Your task to perform on an android device: move a message to another label in the gmail app Image 0: 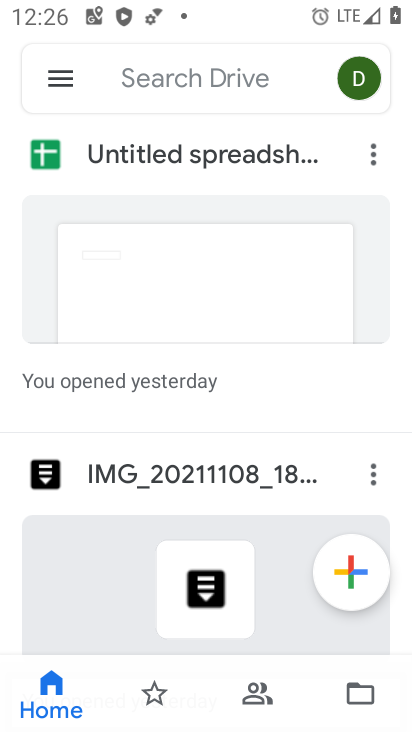
Step 0: press home button
Your task to perform on an android device: move a message to another label in the gmail app Image 1: 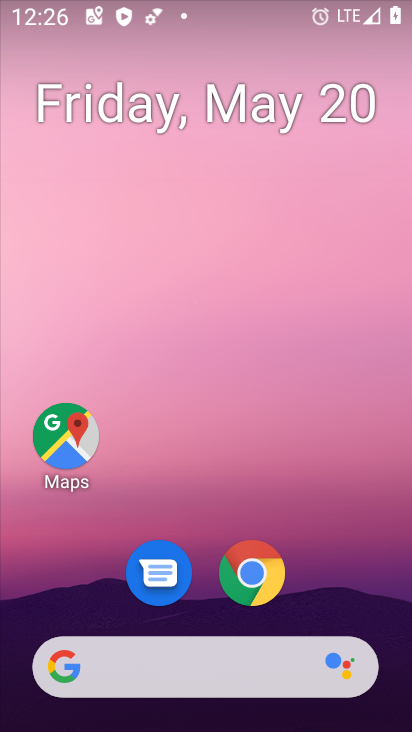
Step 1: drag from (341, 577) to (328, 5)
Your task to perform on an android device: move a message to another label in the gmail app Image 2: 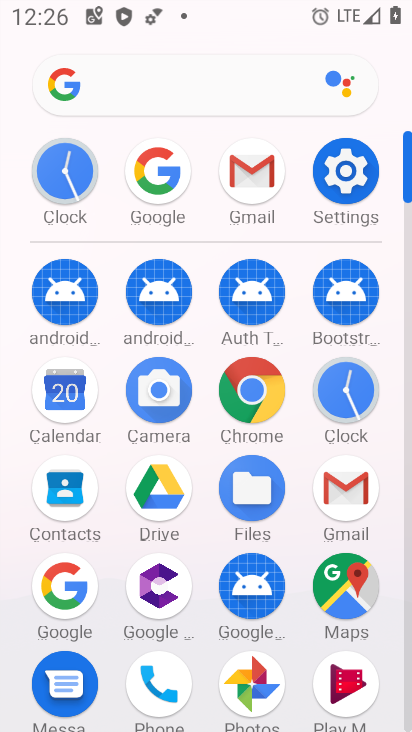
Step 2: click (350, 478)
Your task to perform on an android device: move a message to another label in the gmail app Image 3: 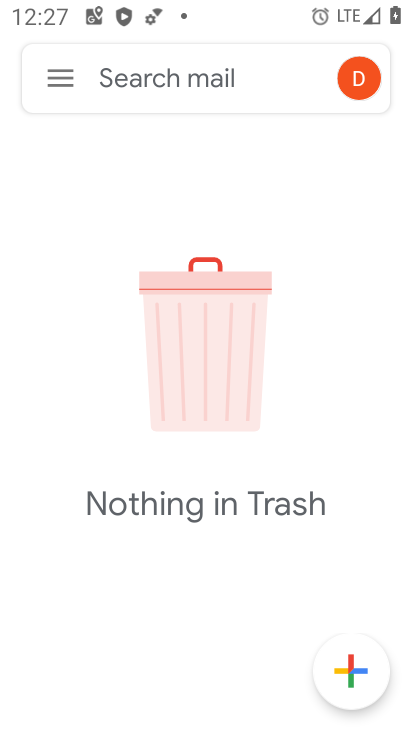
Step 3: click (60, 74)
Your task to perform on an android device: move a message to another label in the gmail app Image 4: 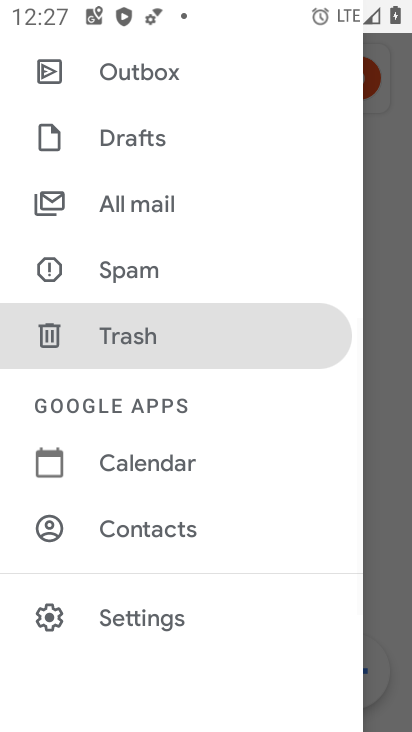
Step 4: click (158, 206)
Your task to perform on an android device: move a message to another label in the gmail app Image 5: 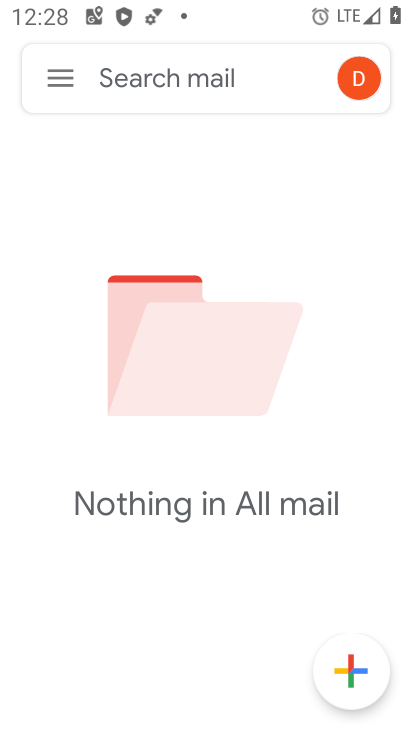
Step 5: task complete